Your task to perform on an android device: turn on airplane mode Image 0: 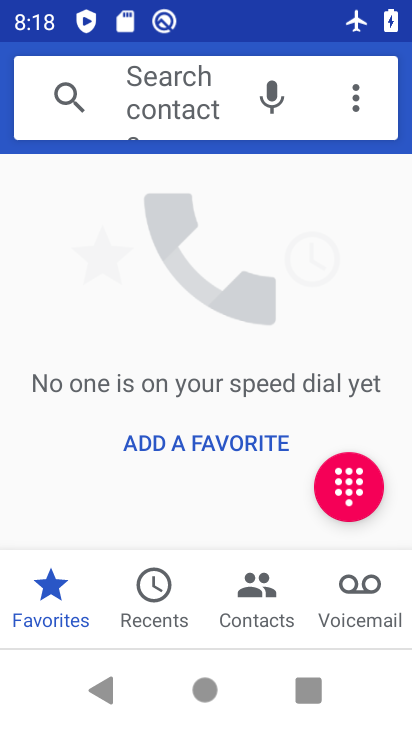
Step 0: press home button
Your task to perform on an android device: turn on airplane mode Image 1: 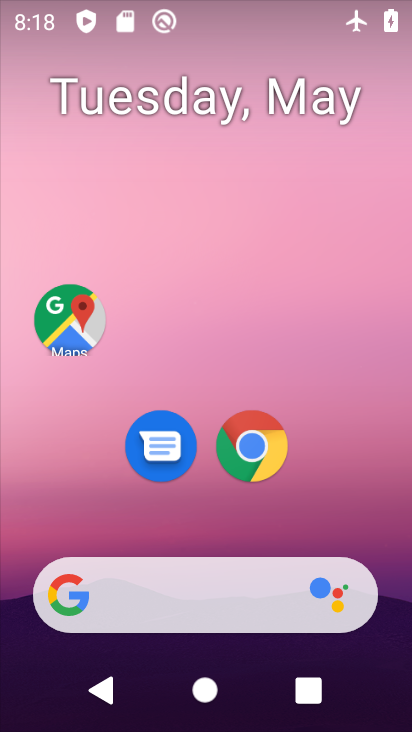
Step 1: drag from (386, 549) to (399, 191)
Your task to perform on an android device: turn on airplane mode Image 2: 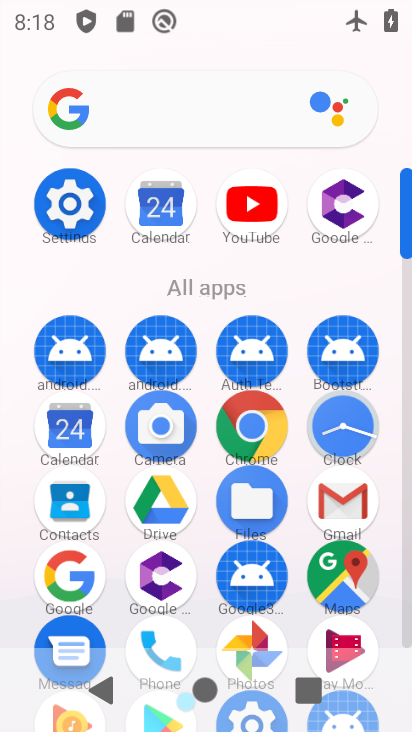
Step 2: drag from (385, 629) to (401, 351)
Your task to perform on an android device: turn on airplane mode Image 3: 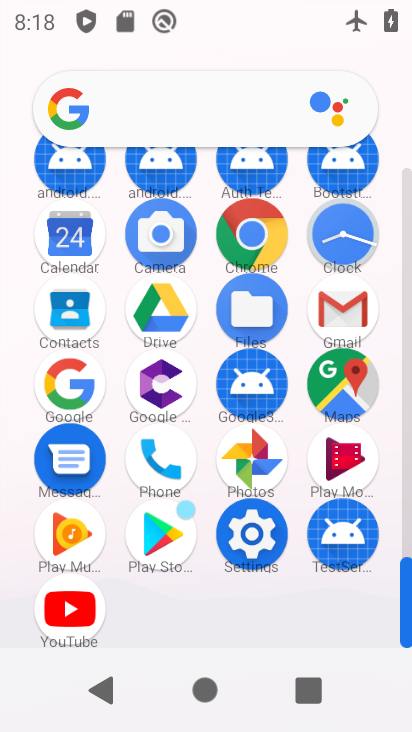
Step 3: click (253, 541)
Your task to perform on an android device: turn on airplane mode Image 4: 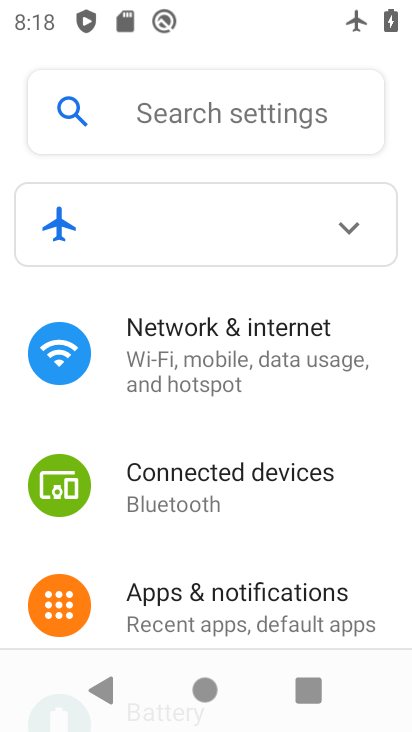
Step 4: drag from (360, 585) to (364, 447)
Your task to perform on an android device: turn on airplane mode Image 5: 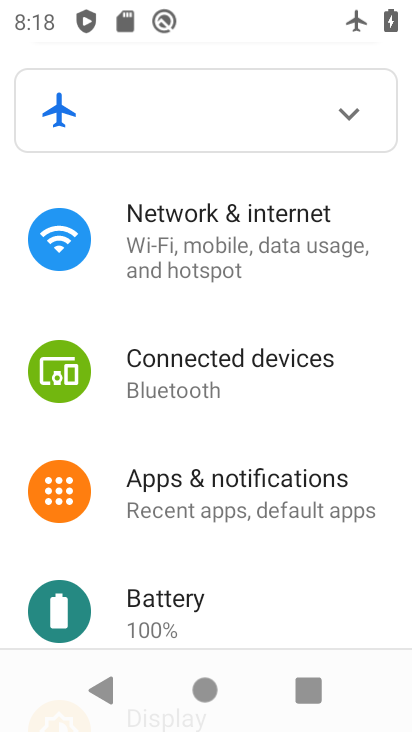
Step 5: drag from (366, 609) to (392, 476)
Your task to perform on an android device: turn on airplane mode Image 6: 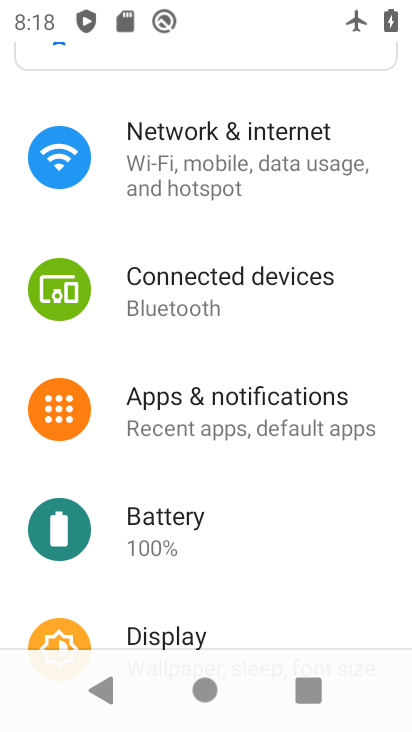
Step 6: drag from (380, 606) to (383, 437)
Your task to perform on an android device: turn on airplane mode Image 7: 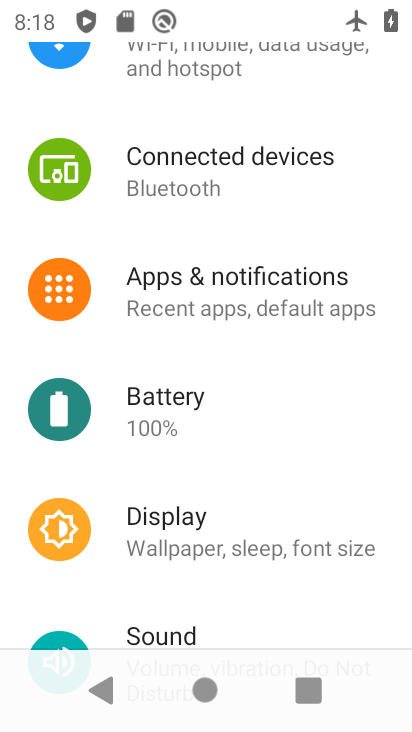
Step 7: drag from (376, 627) to (386, 466)
Your task to perform on an android device: turn on airplane mode Image 8: 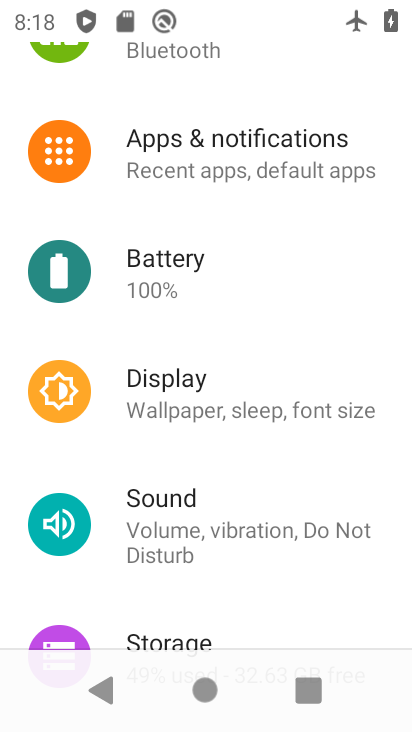
Step 8: drag from (370, 614) to (360, 484)
Your task to perform on an android device: turn on airplane mode Image 9: 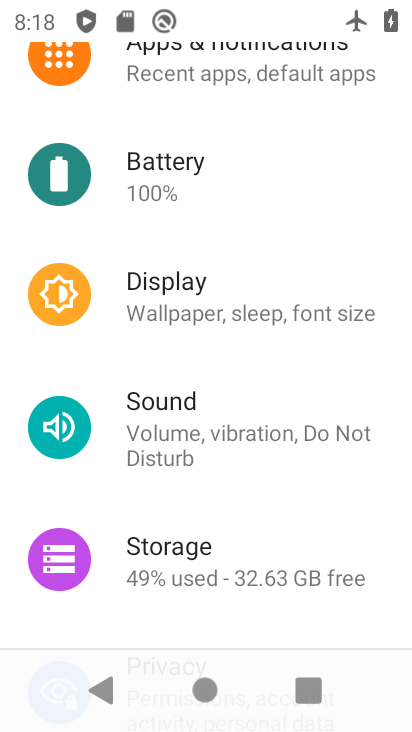
Step 9: drag from (383, 512) to (389, 430)
Your task to perform on an android device: turn on airplane mode Image 10: 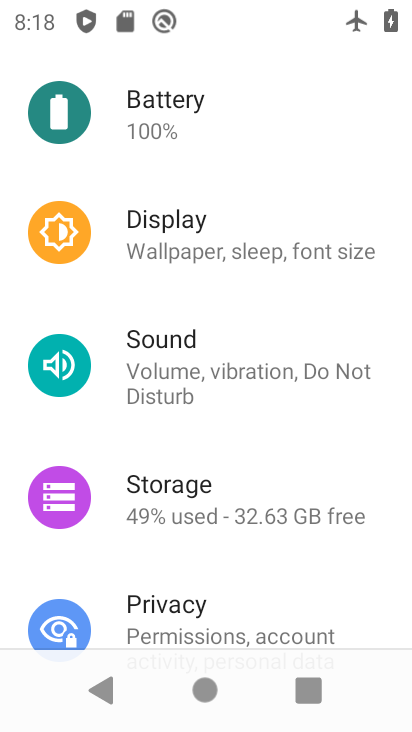
Step 10: drag from (345, 206) to (347, 316)
Your task to perform on an android device: turn on airplane mode Image 11: 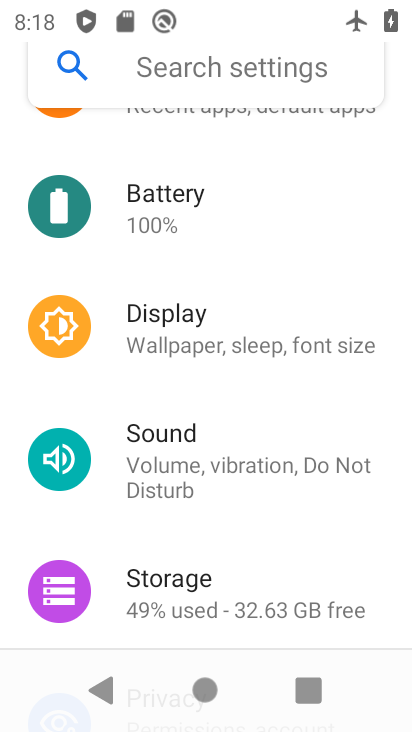
Step 11: drag from (369, 159) to (343, 313)
Your task to perform on an android device: turn on airplane mode Image 12: 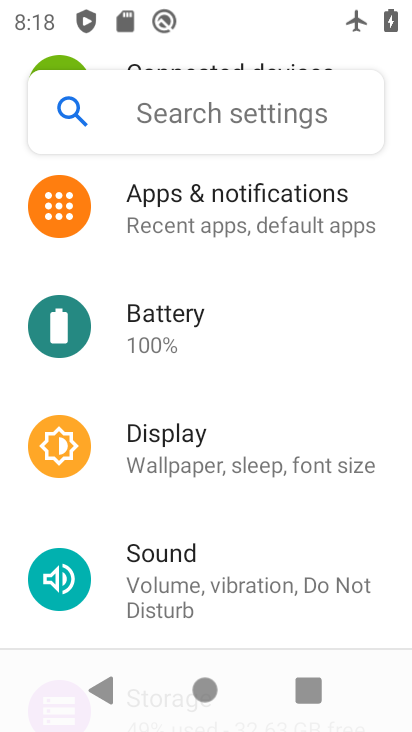
Step 12: drag from (391, 182) to (355, 332)
Your task to perform on an android device: turn on airplane mode Image 13: 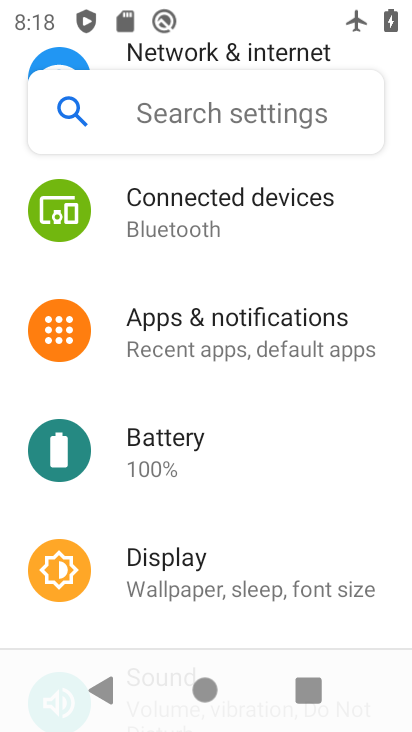
Step 13: drag from (371, 191) to (376, 302)
Your task to perform on an android device: turn on airplane mode Image 14: 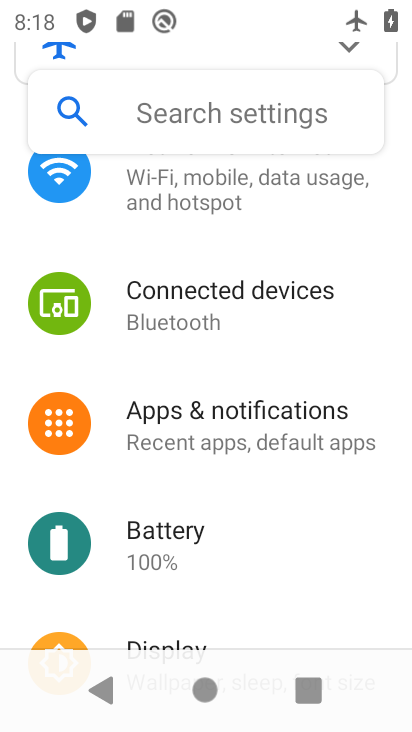
Step 14: drag from (384, 170) to (362, 303)
Your task to perform on an android device: turn on airplane mode Image 15: 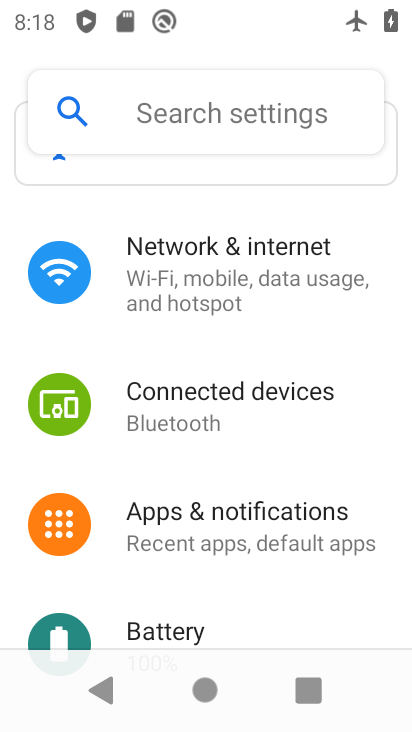
Step 15: click (301, 279)
Your task to perform on an android device: turn on airplane mode Image 16: 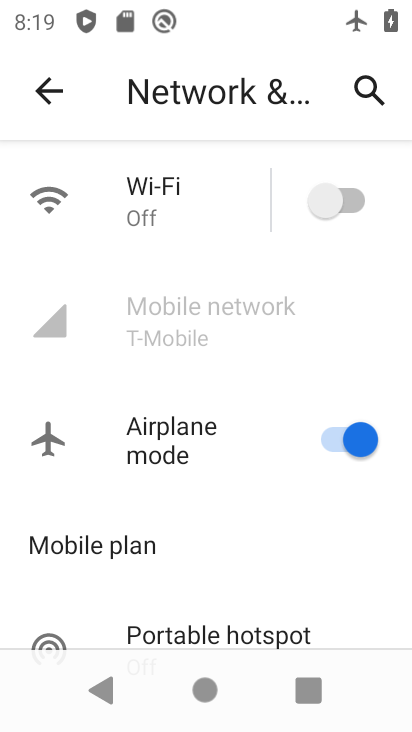
Step 16: task complete